Your task to perform on an android device: Do I have any events this weekend? Image 0: 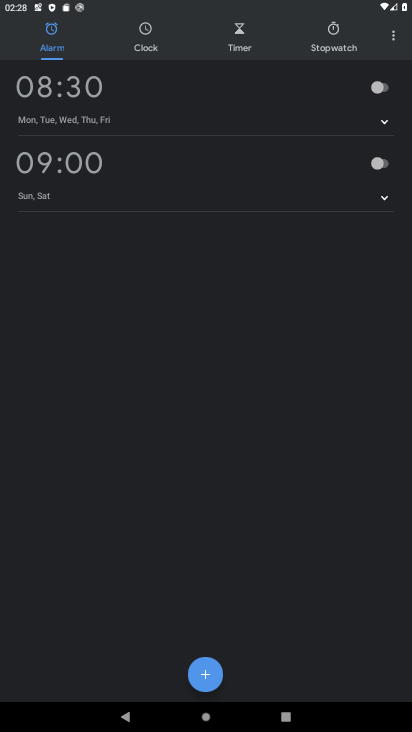
Step 0: press home button
Your task to perform on an android device: Do I have any events this weekend? Image 1: 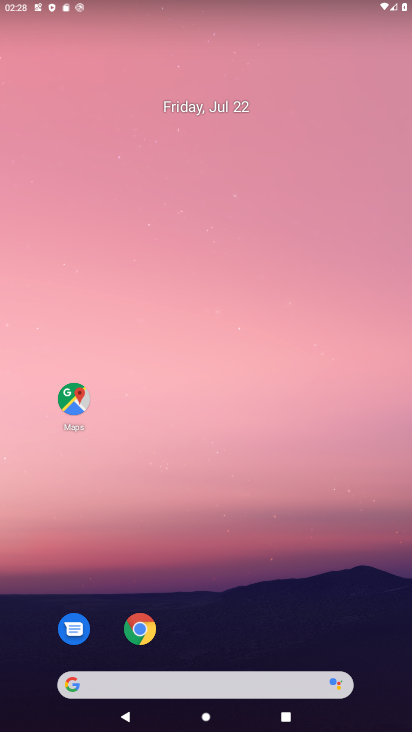
Step 1: drag from (34, 648) to (290, 124)
Your task to perform on an android device: Do I have any events this weekend? Image 2: 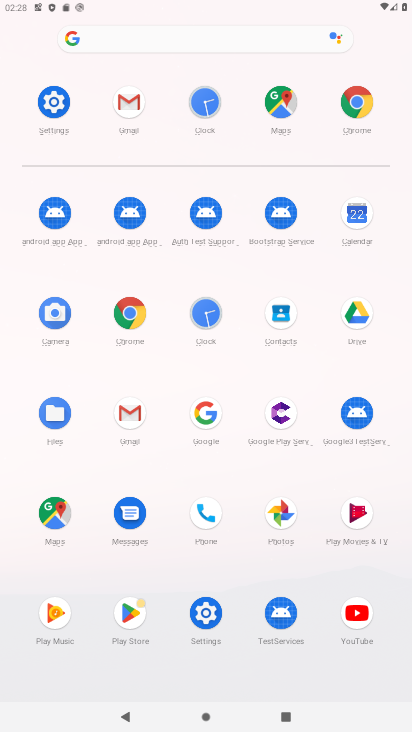
Step 2: click (351, 227)
Your task to perform on an android device: Do I have any events this weekend? Image 3: 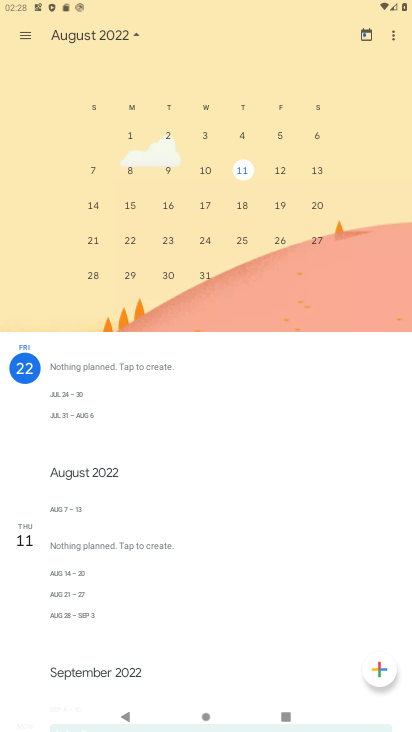
Step 3: drag from (16, 234) to (403, 209)
Your task to perform on an android device: Do I have any events this weekend? Image 4: 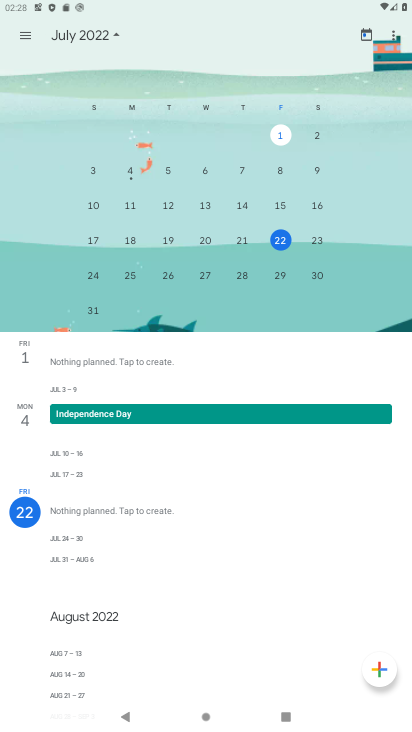
Step 4: click (128, 273)
Your task to perform on an android device: Do I have any events this weekend? Image 5: 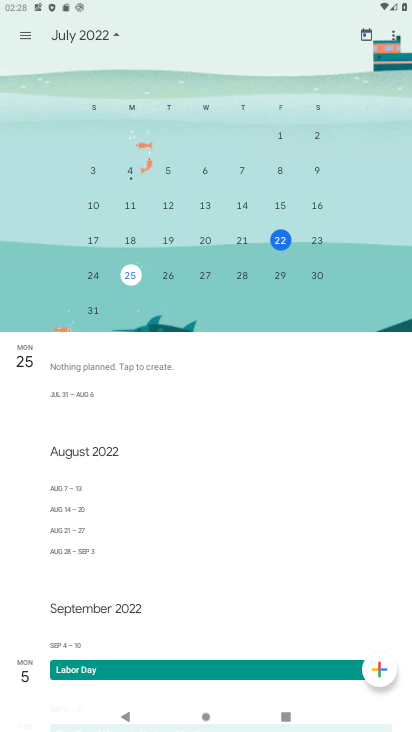
Step 5: click (167, 270)
Your task to perform on an android device: Do I have any events this weekend? Image 6: 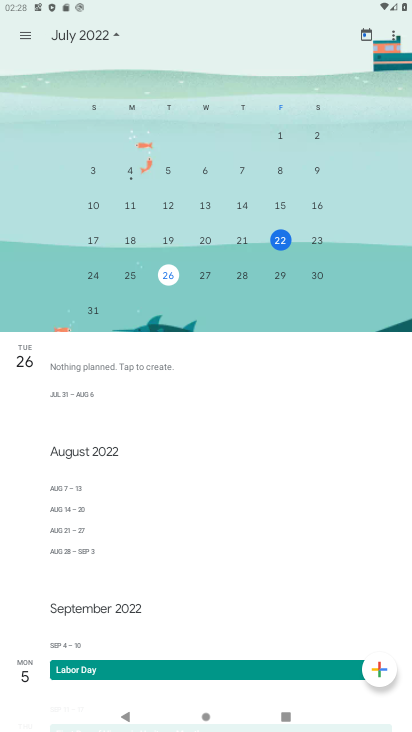
Step 6: click (200, 273)
Your task to perform on an android device: Do I have any events this weekend? Image 7: 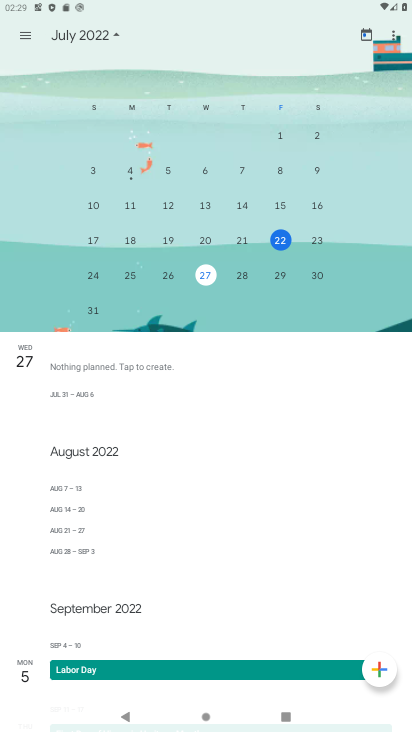
Step 7: click (242, 273)
Your task to perform on an android device: Do I have any events this weekend? Image 8: 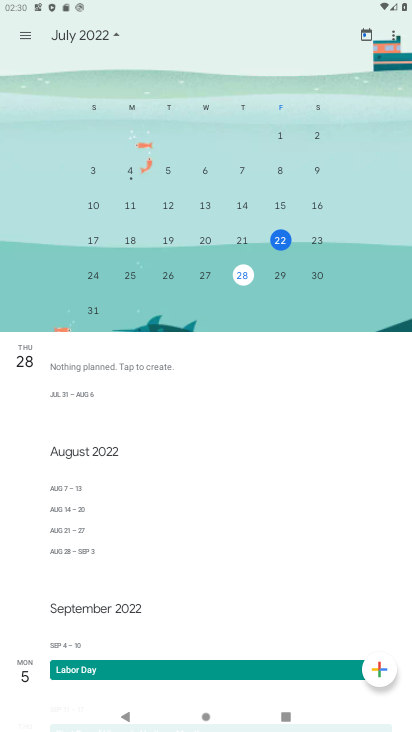
Step 8: task complete